Your task to perform on an android device: open sync settings in chrome Image 0: 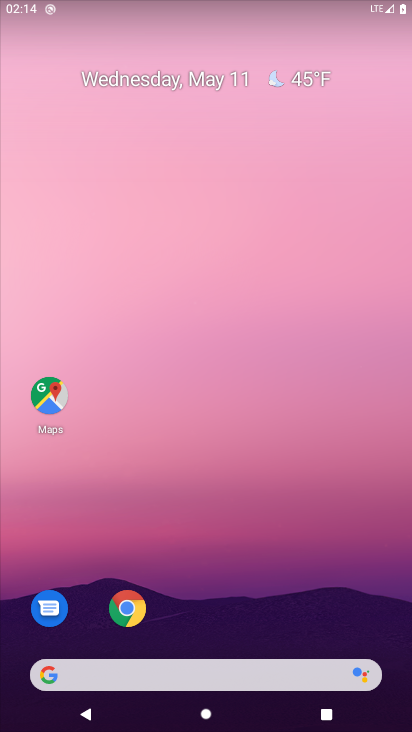
Step 0: click (127, 604)
Your task to perform on an android device: open sync settings in chrome Image 1: 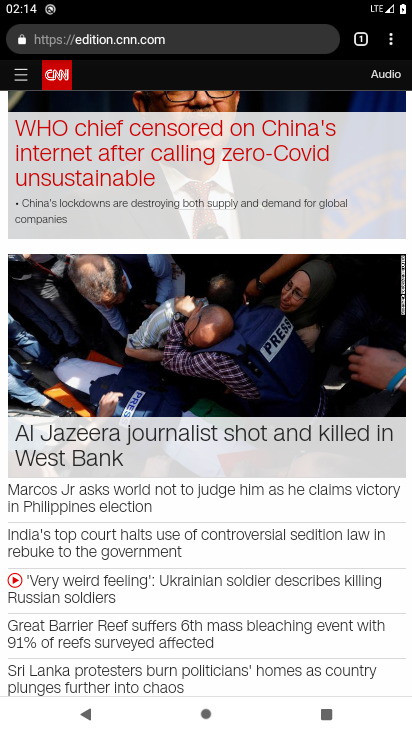
Step 1: press home button
Your task to perform on an android device: open sync settings in chrome Image 2: 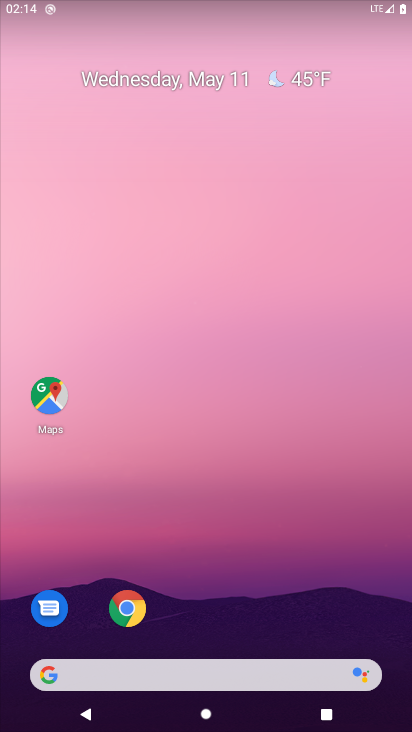
Step 2: click (126, 605)
Your task to perform on an android device: open sync settings in chrome Image 3: 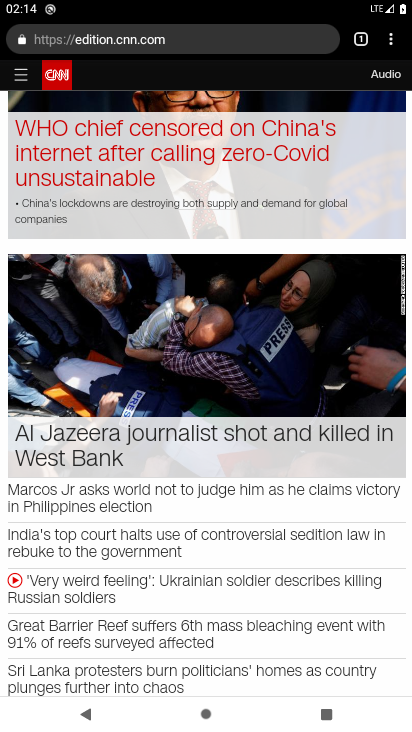
Step 3: click (393, 41)
Your task to perform on an android device: open sync settings in chrome Image 4: 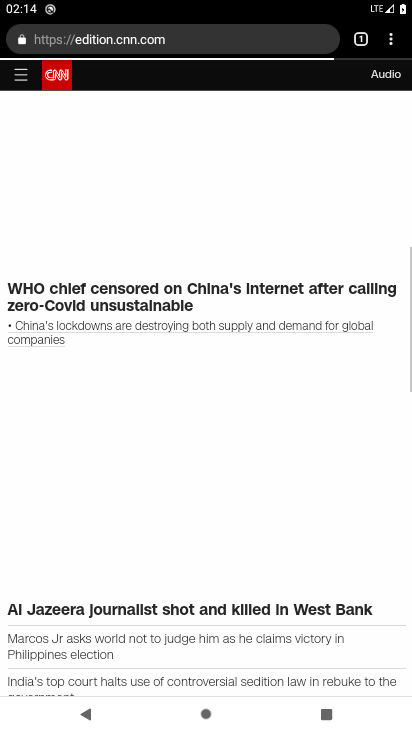
Step 4: click (394, 35)
Your task to perform on an android device: open sync settings in chrome Image 5: 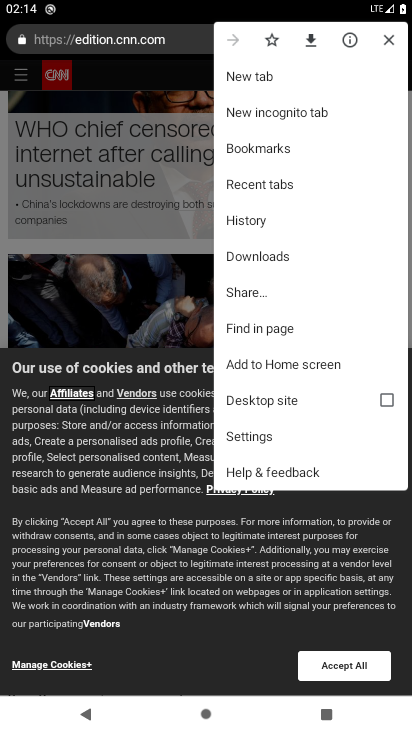
Step 5: click (277, 435)
Your task to perform on an android device: open sync settings in chrome Image 6: 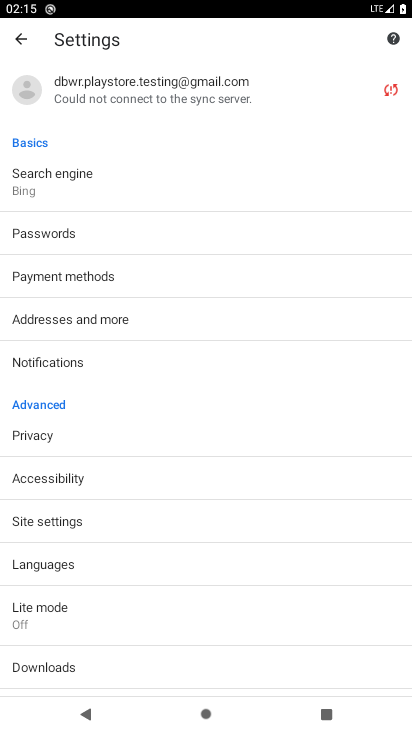
Step 6: click (126, 87)
Your task to perform on an android device: open sync settings in chrome Image 7: 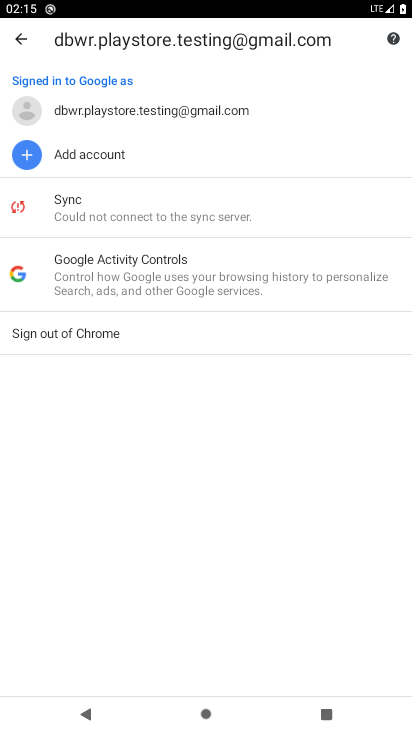
Step 7: click (114, 191)
Your task to perform on an android device: open sync settings in chrome Image 8: 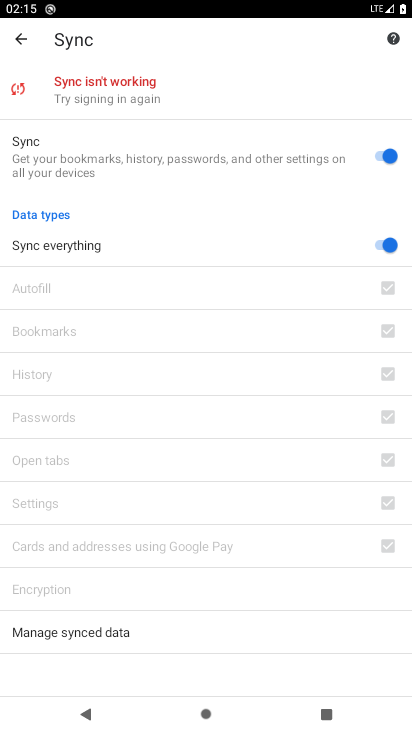
Step 8: task complete